Your task to perform on an android device: What's the weather going to be tomorrow? Image 0: 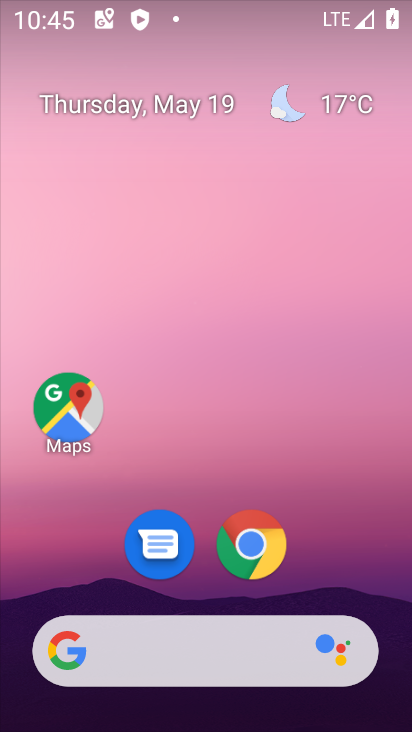
Step 0: drag from (7, 720) to (273, 731)
Your task to perform on an android device: What's the weather going to be tomorrow? Image 1: 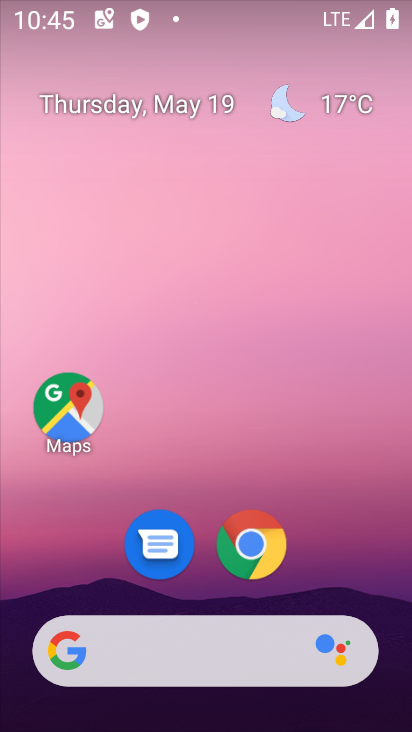
Step 1: click (213, 667)
Your task to perform on an android device: What's the weather going to be tomorrow? Image 2: 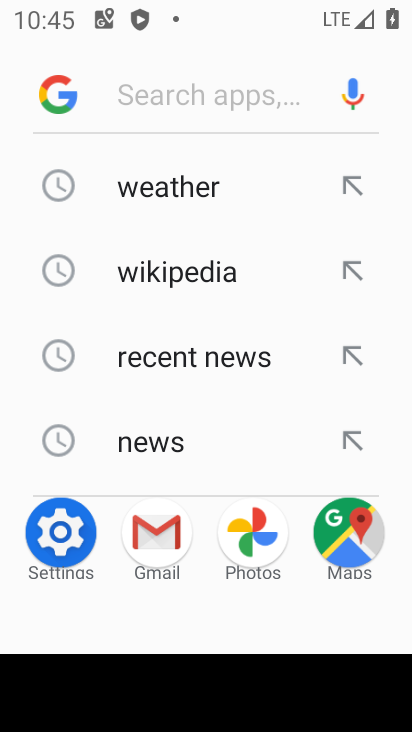
Step 2: type " What's the weather going to be tomorrow?"
Your task to perform on an android device: What's the weather going to be tomorrow? Image 3: 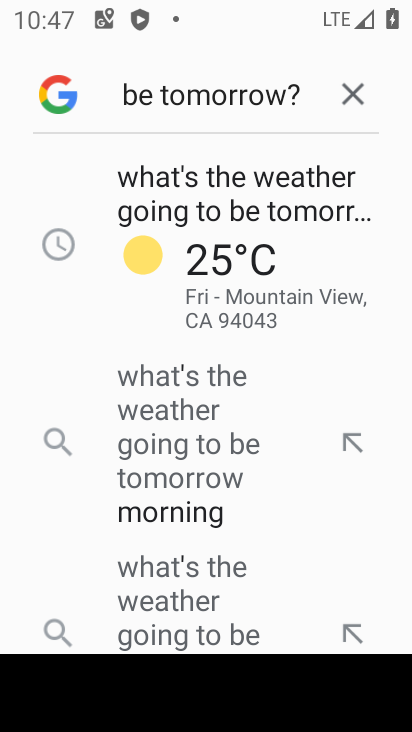
Step 3: click (227, 177)
Your task to perform on an android device: What's the weather going to be tomorrow? Image 4: 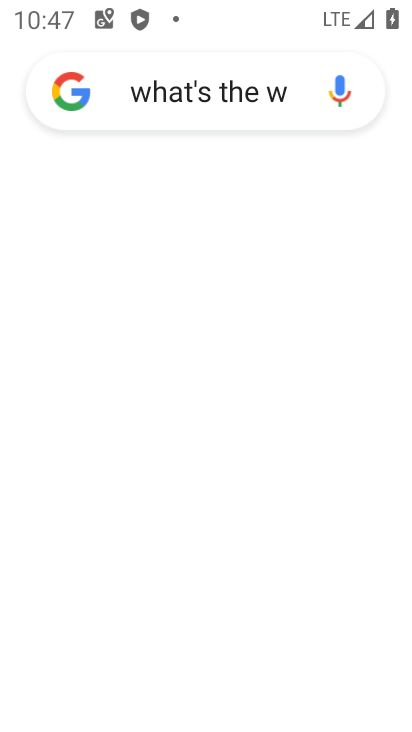
Step 4: task complete